Your task to perform on an android device: Open calendar and show me the first week of next month Image 0: 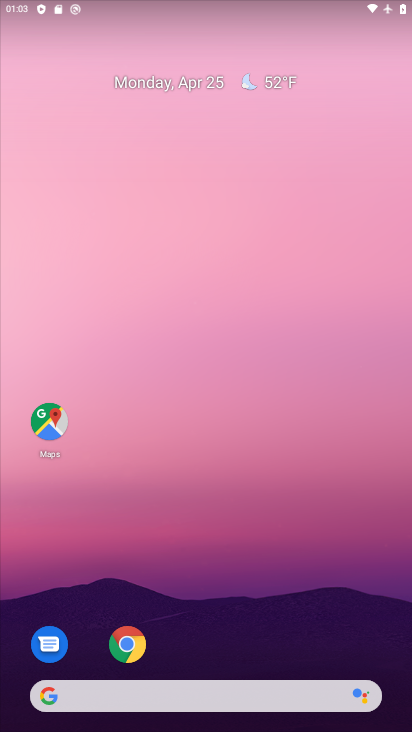
Step 0: drag from (268, 636) to (272, 170)
Your task to perform on an android device: Open calendar and show me the first week of next month Image 1: 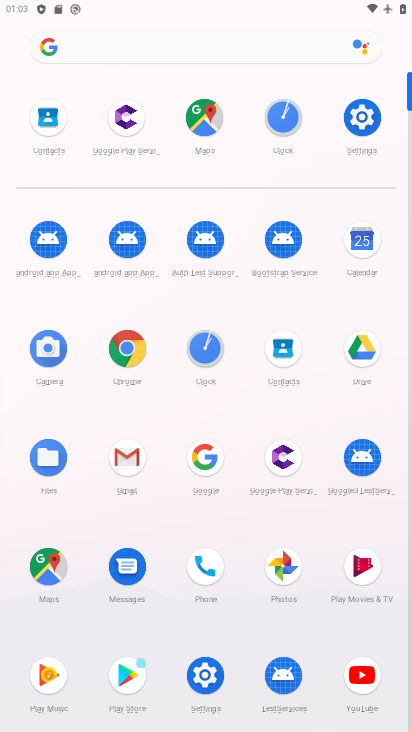
Step 1: click (369, 257)
Your task to perform on an android device: Open calendar and show me the first week of next month Image 2: 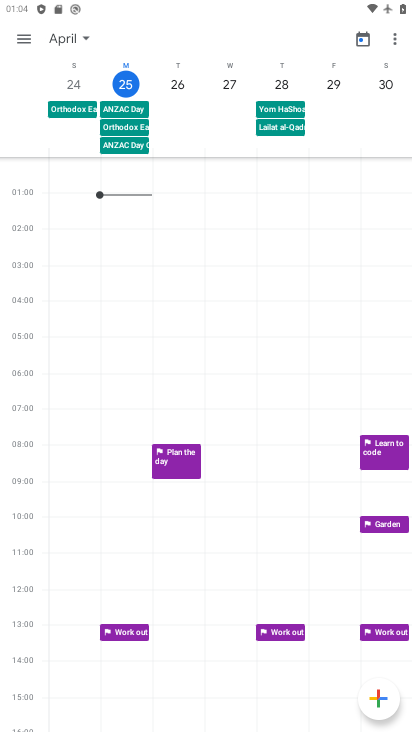
Step 2: click (85, 41)
Your task to perform on an android device: Open calendar and show me the first week of next month Image 3: 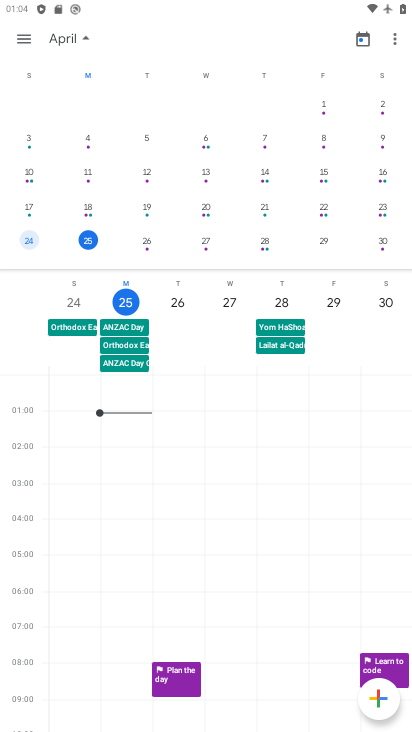
Step 3: drag from (364, 227) to (53, 222)
Your task to perform on an android device: Open calendar and show me the first week of next month Image 4: 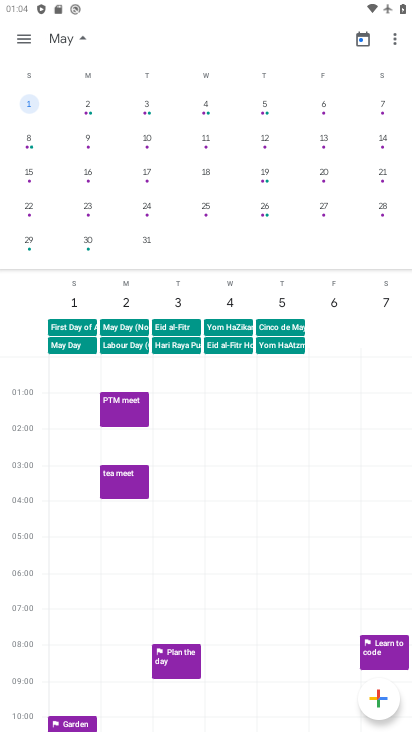
Step 4: click (195, 106)
Your task to perform on an android device: Open calendar and show me the first week of next month Image 5: 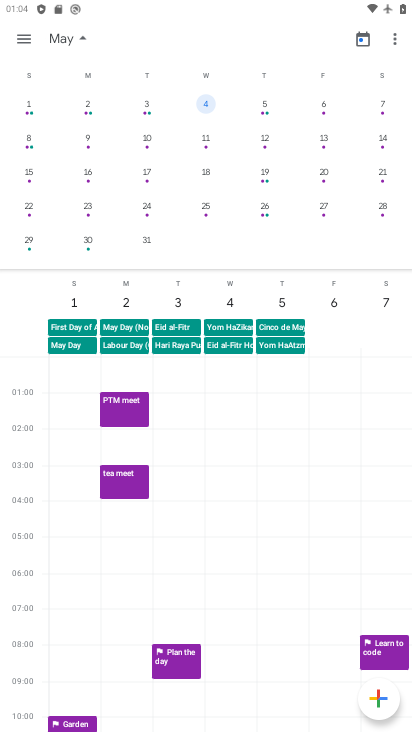
Step 5: task complete